Your task to perform on an android device: Add bose quietcomfort 35 to the cart on ebay.com Image 0: 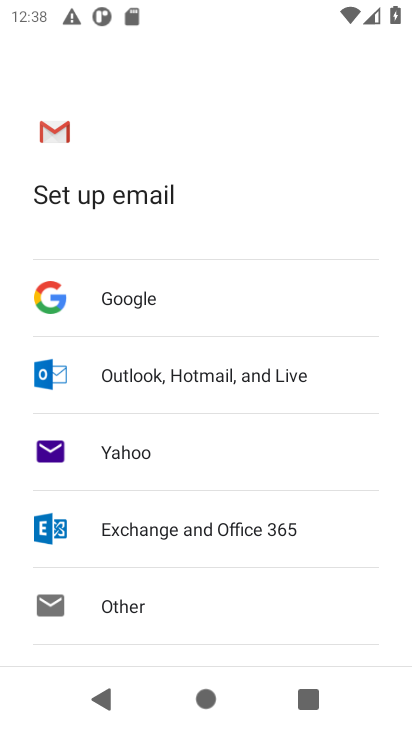
Step 0: press home button
Your task to perform on an android device: Add bose quietcomfort 35 to the cart on ebay.com Image 1: 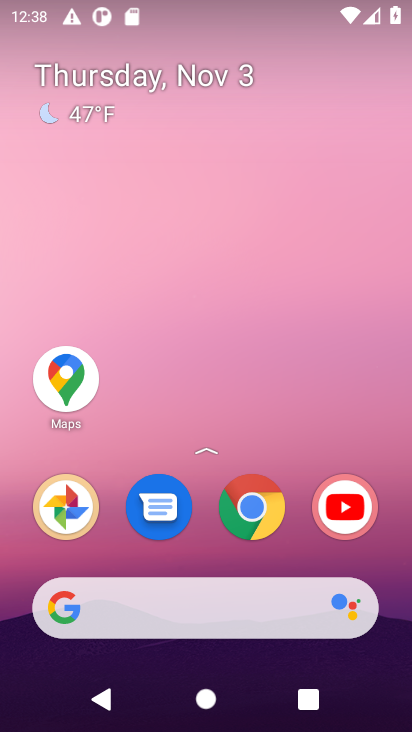
Step 1: click (219, 619)
Your task to perform on an android device: Add bose quietcomfort 35 to the cart on ebay.com Image 2: 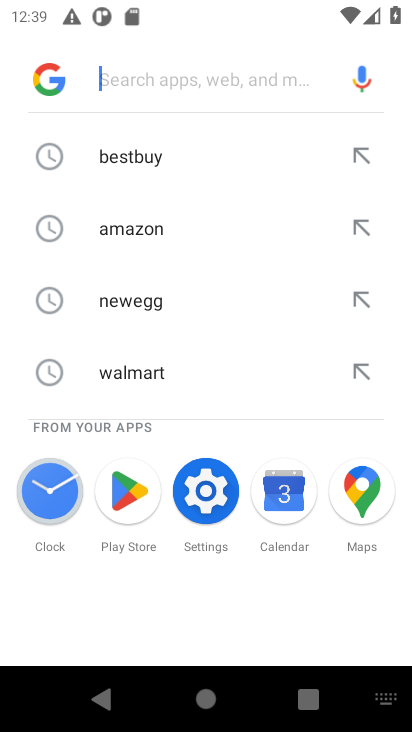
Step 2: type "ebay.com"
Your task to perform on an android device: Add bose quietcomfort 35 to the cart on ebay.com Image 3: 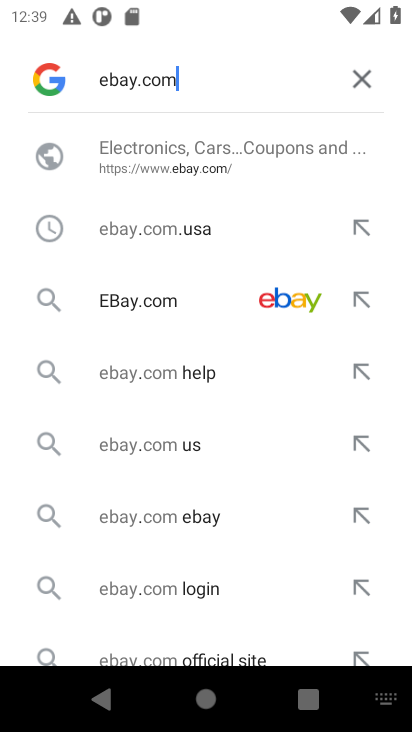
Step 3: click (199, 170)
Your task to perform on an android device: Add bose quietcomfort 35 to the cart on ebay.com Image 4: 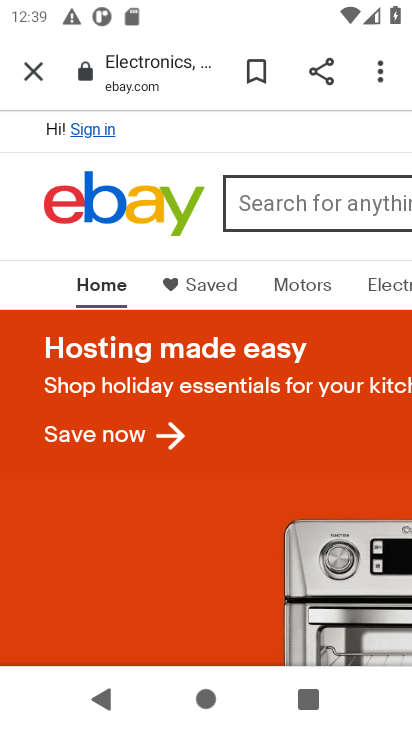
Step 4: click (277, 198)
Your task to perform on an android device: Add bose quietcomfort 35 to the cart on ebay.com Image 5: 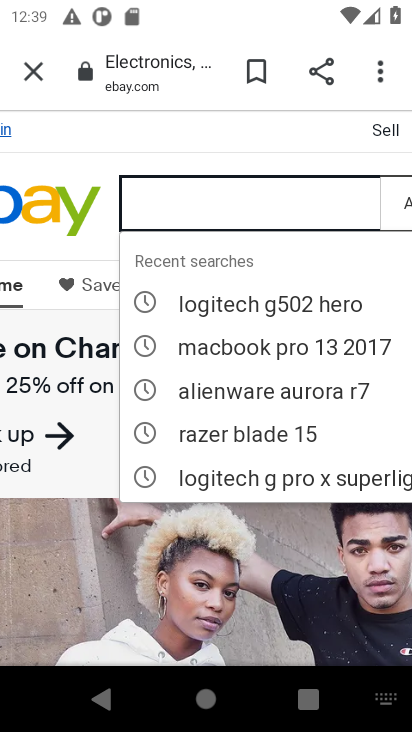
Step 5: type "quietcomfort"
Your task to perform on an android device: Add bose quietcomfort 35 to the cart on ebay.com Image 6: 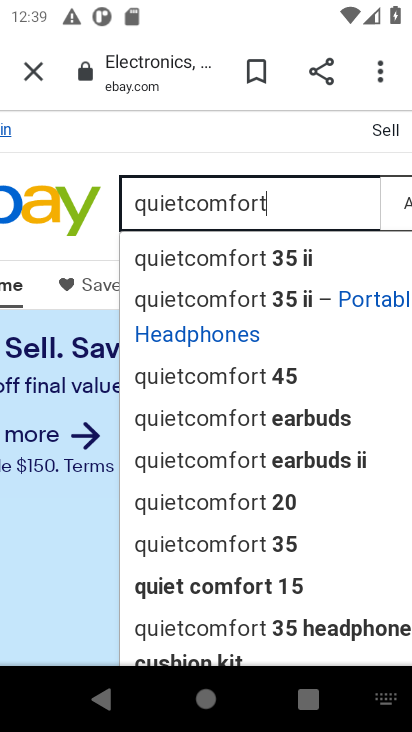
Step 6: click (204, 264)
Your task to perform on an android device: Add bose quietcomfort 35 to the cart on ebay.com Image 7: 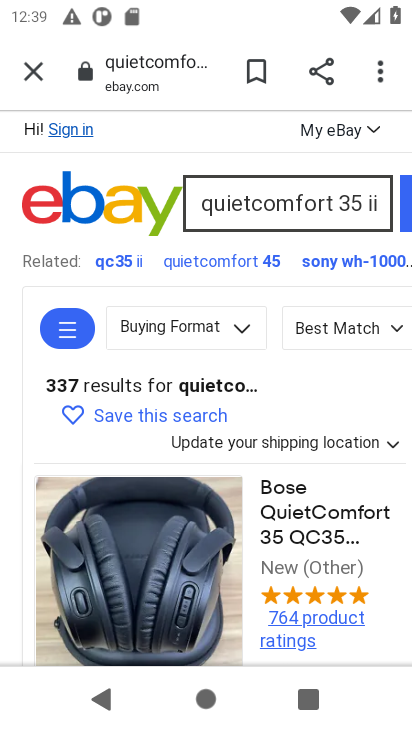
Step 7: click (274, 529)
Your task to perform on an android device: Add bose quietcomfort 35 to the cart on ebay.com Image 8: 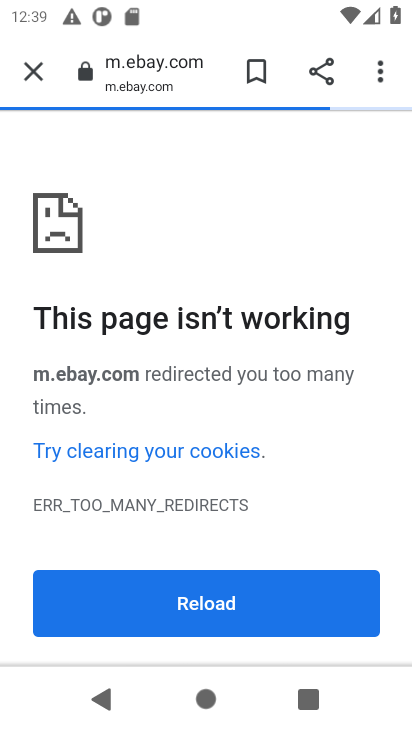
Step 8: task complete